Your task to perform on an android device: toggle location history Image 0: 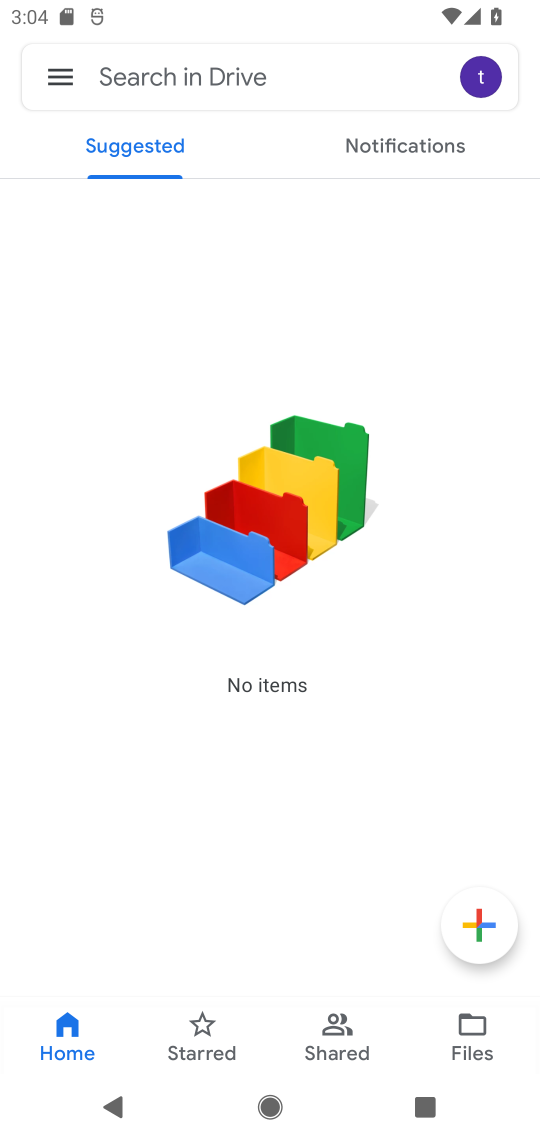
Step 0: task complete